Your task to perform on an android device: When is my next meeting? Image 0: 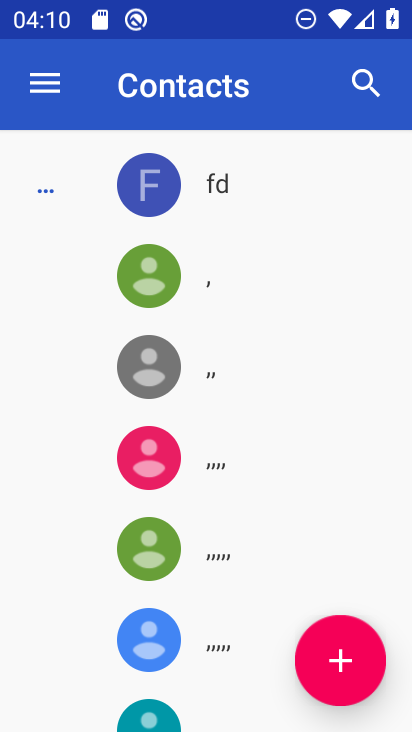
Step 0: press home button
Your task to perform on an android device: When is my next meeting? Image 1: 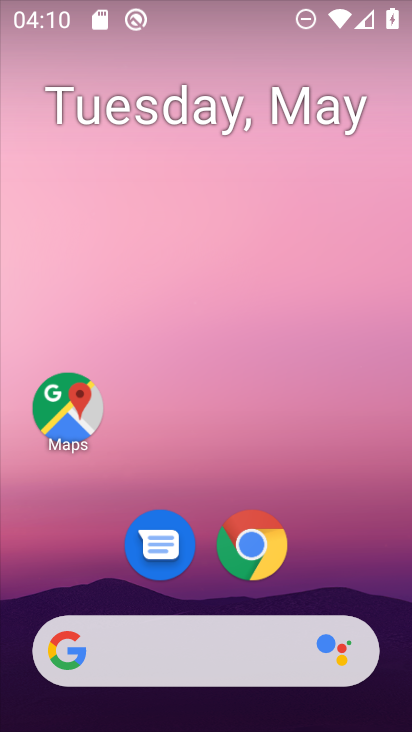
Step 1: drag from (386, 610) to (368, 63)
Your task to perform on an android device: When is my next meeting? Image 2: 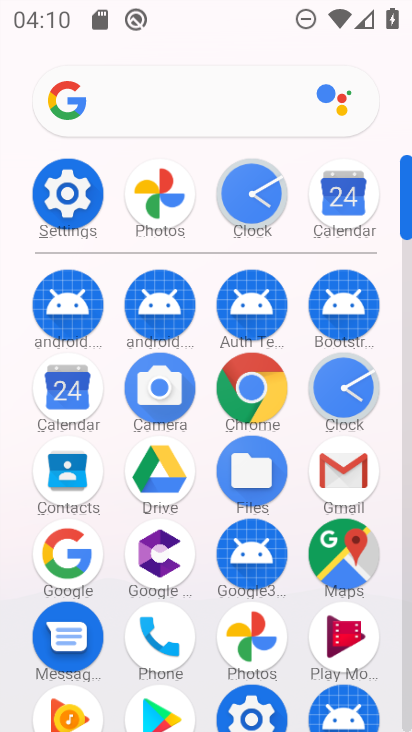
Step 2: click (405, 720)
Your task to perform on an android device: When is my next meeting? Image 3: 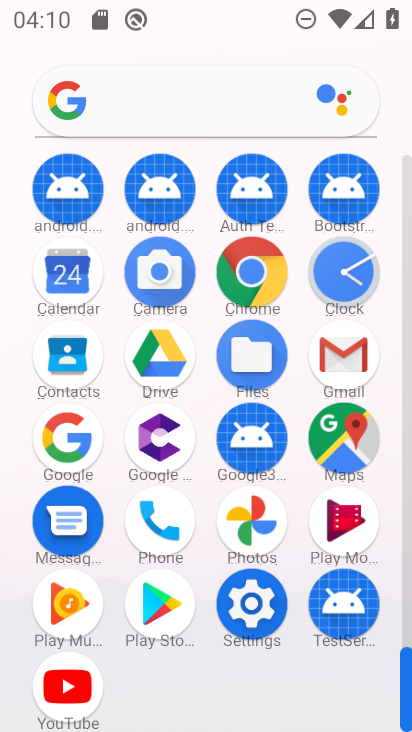
Step 3: click (63, 273)
Your task to perform on an android device: When is my next meeting? Image 4: 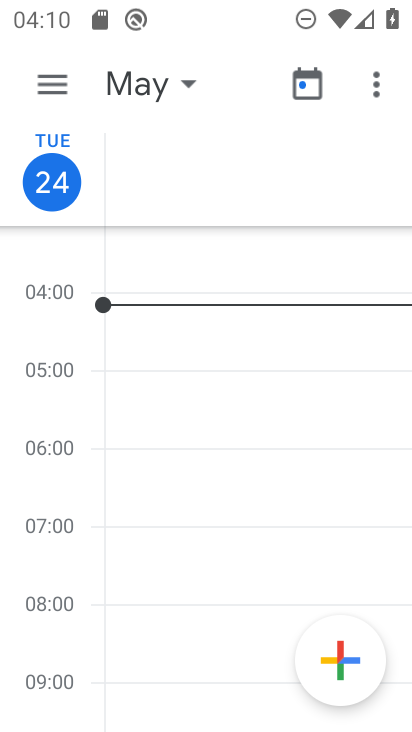
Step 4: click (47, 79)
Your task to perform on an android device: When is my next meeting? Image 5: 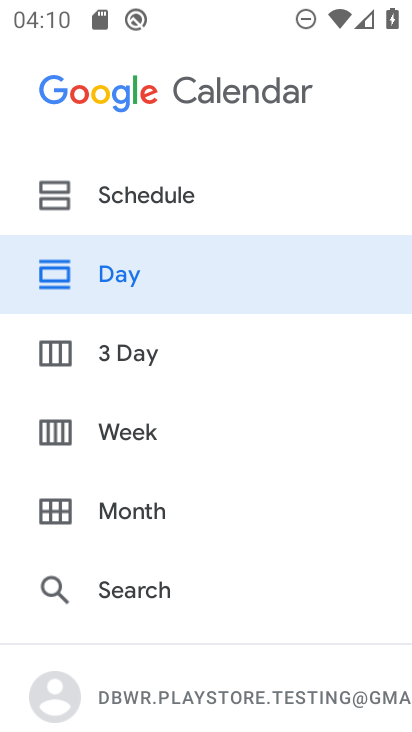
Step 5: click (142, 183)
Your task to perform on an android device: When is my next meeting? Image 6: 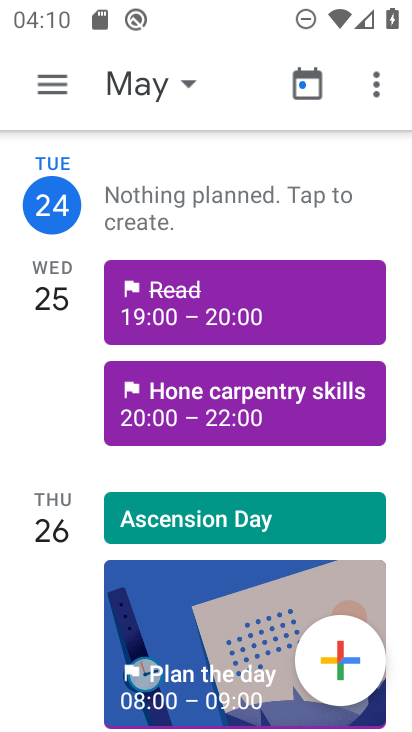
Step 6: task complete